Your task to perform on an android device: Do I have any events tomorrow? Image 0: 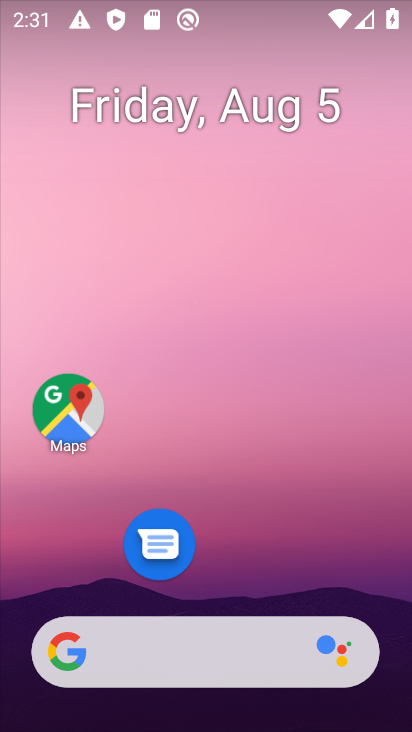
Step 0: click (245, 71)
Your task to perform on an android device: Do I have any events tomorrow? Image 1: 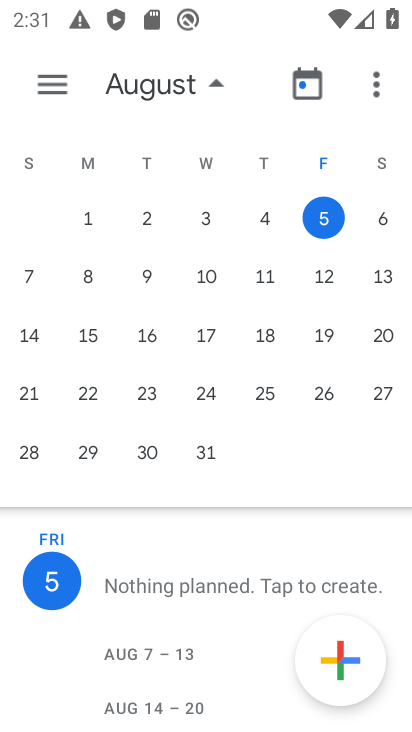
Step 1: press home button
Your task to perform on an android device: Do I have any events tomorrow? Image 2: 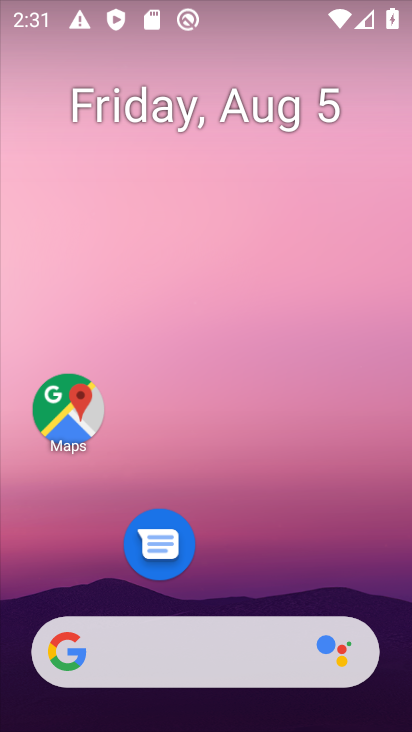
Step 2: drag from (247, 611) to (171, 1)
Your task to perform on an android device: Do I have any events tomorrow? Image 3: 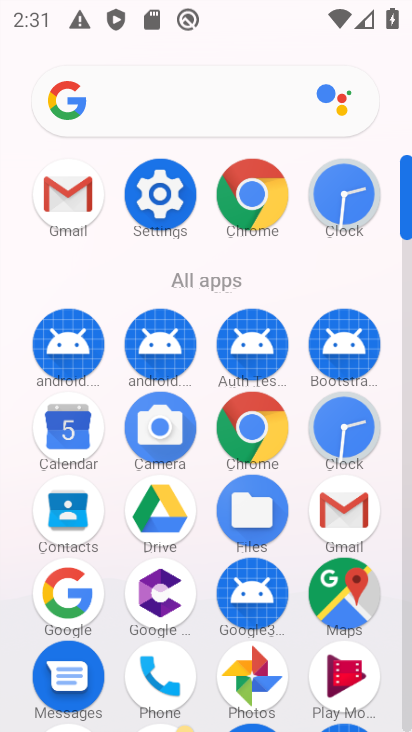
Step 3: click (70, 435)
Your task to perform on an android device: Do I have any events tomorrow? Image 4: 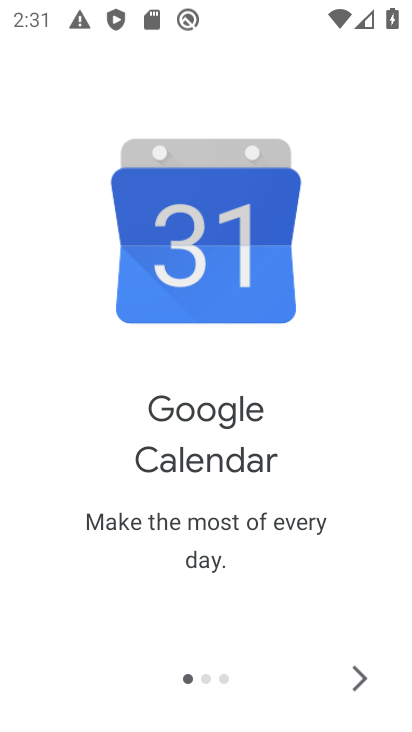
Step 4: click (358, 661)
Your task to perform on an android device: Do I have any events tomorrow? Image 5: 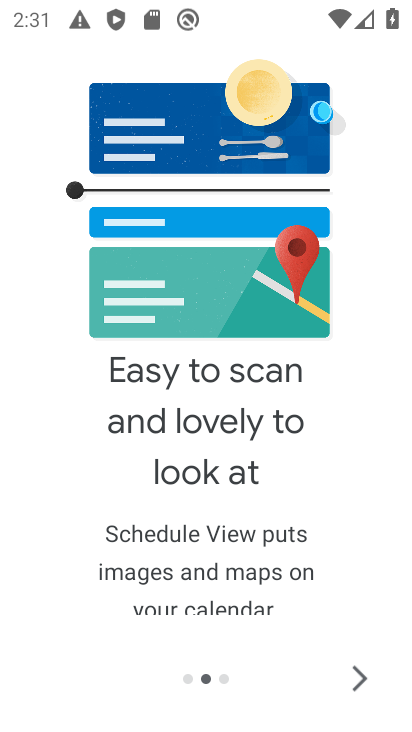
Step 5: click (357, 661)
Your task to perform on an android device: Do I have any events tomorrow? Image 6: 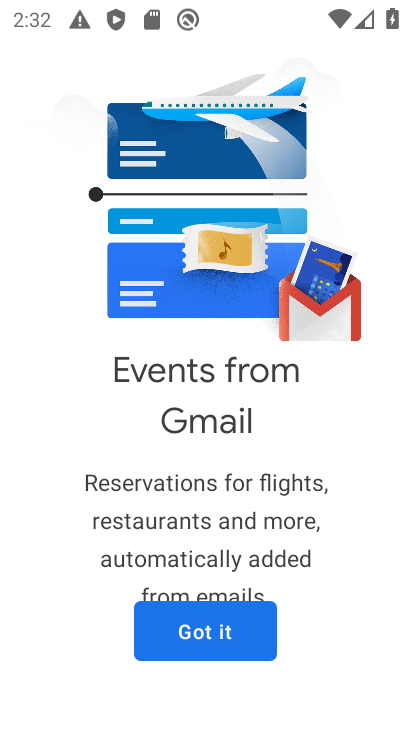
Step 6: click (245, 629)
Your task to perform on an android device: Do I have any events tomorrow? Image 7: 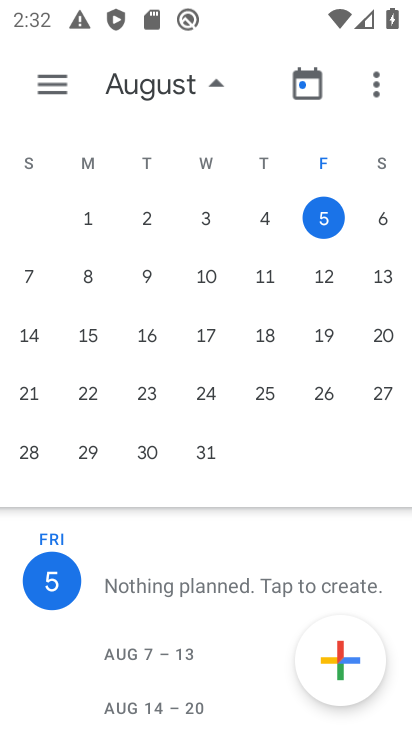
Step 7: click (368, 221)
Your task to perform on an android device: Do I have any events tomorrow? Image 8: 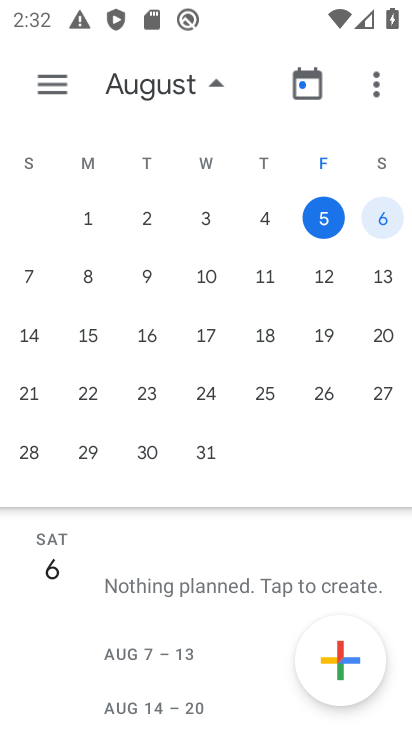
Step 8: task complete